Your task to perform on an android device: Open calendar and show me the first week of next month Image 0: 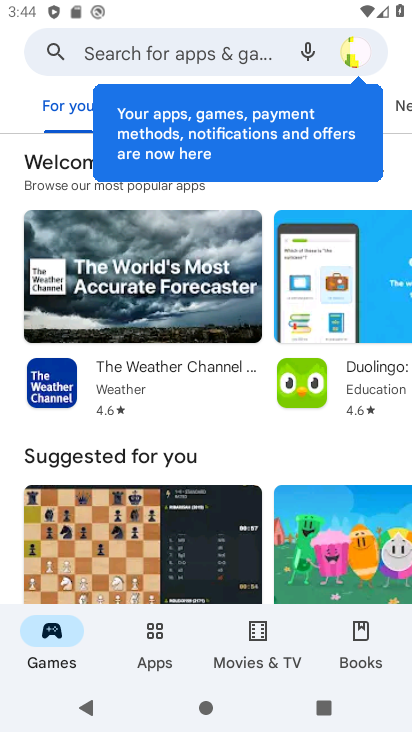
Step 0: press home button
Your task to perform on an android device: Open calendar and show me the first week of next month Image 1: 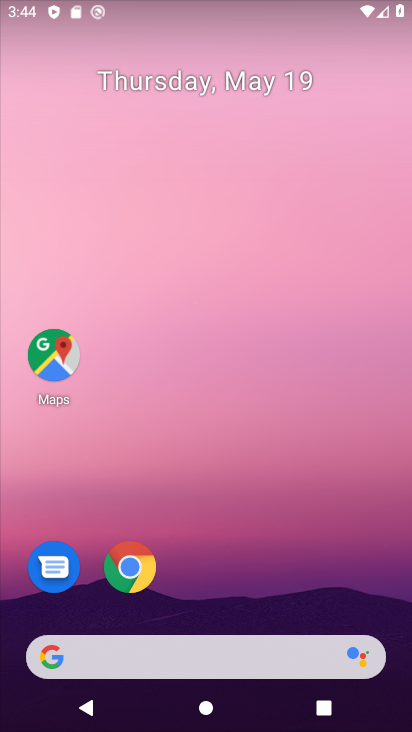
Step 1: drag from (171, 596) to (226, 1)
Your task to perform on an android device: Open calendar and show me the first week of next month Image 2: 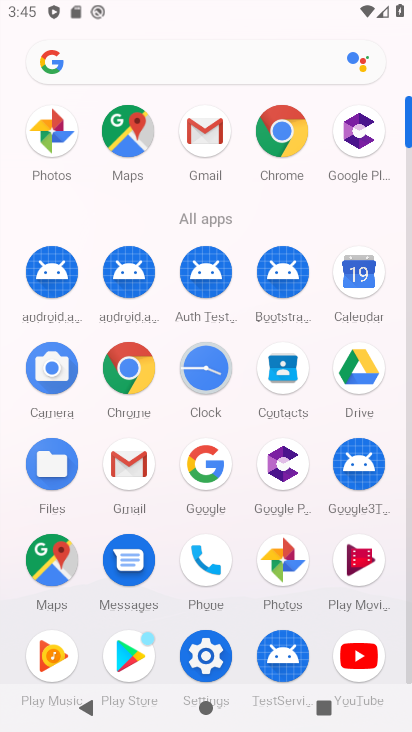
Step 2: click (343, 309)
Your task to perform on an android device: Open calendar and show me the first week of next month Image 3: 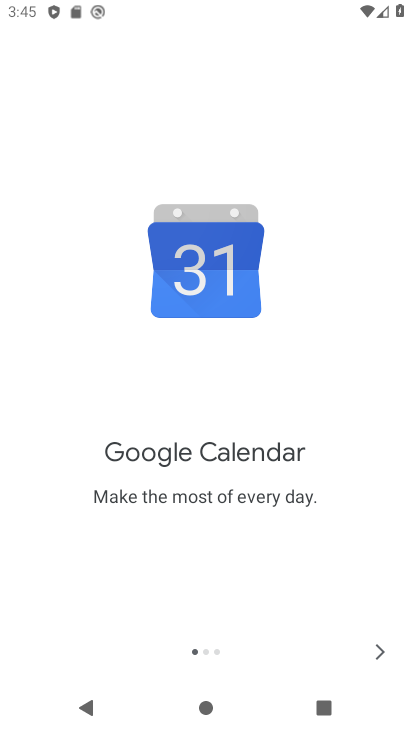
Step 3: click (369, 647)
Your task to perform on an android device: Open calendar and show me the first week of next month Image 4: 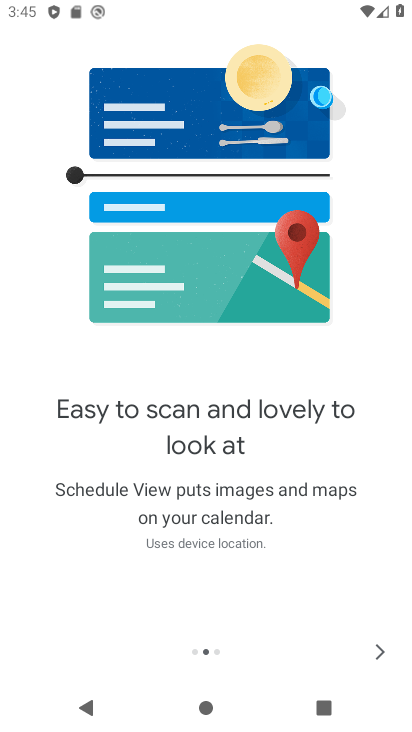
Step 4: click (369, 647)
Your task to perform on an android device: Open calendar and show me the first week of next month Image 5: 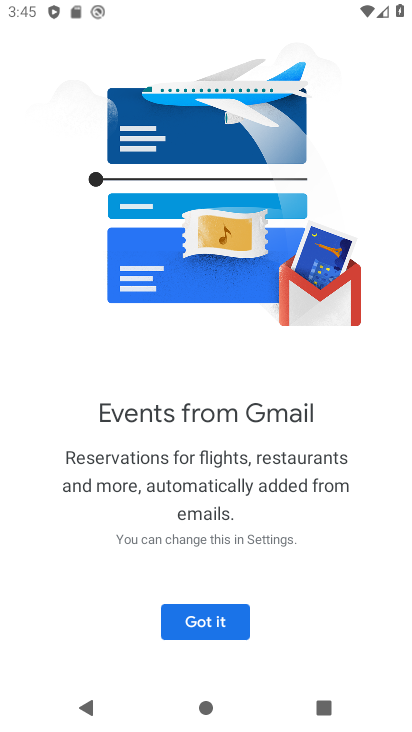
Step 5: click (205, 624)
Your task to perform on an android device: Open calendar and show me the first week of next month Image 6: 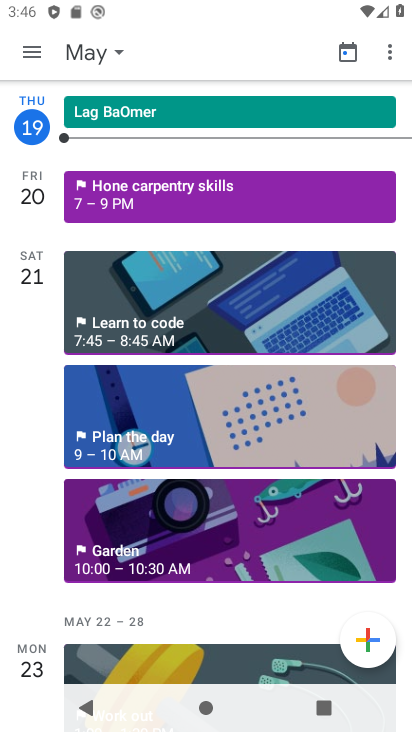
Step 6: click (29, 54)
Your task to perform on an android device: Open calendar and show me the first week of next month Image 7: 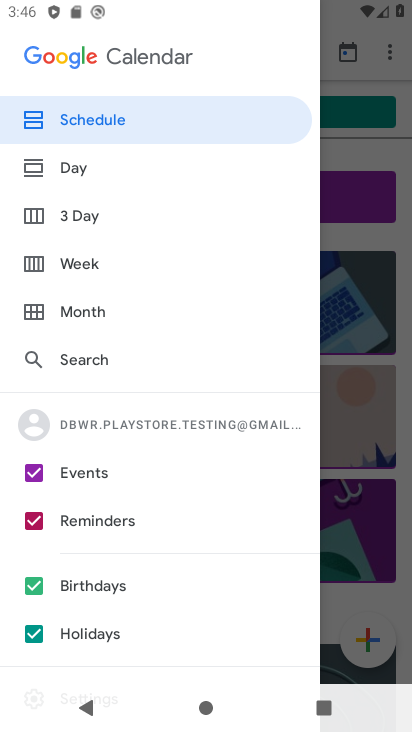
Step 7: click (54, 268)
Your task to perform on an android device: Open calendar and show me the first week of next month Image 8: 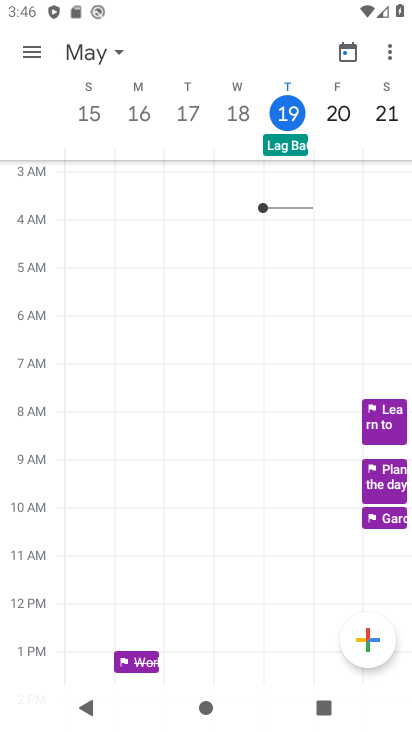
Step 8: click (88, 59)
Your task to perform on an android device: Open calendar and show me the first week of next month Image 9: 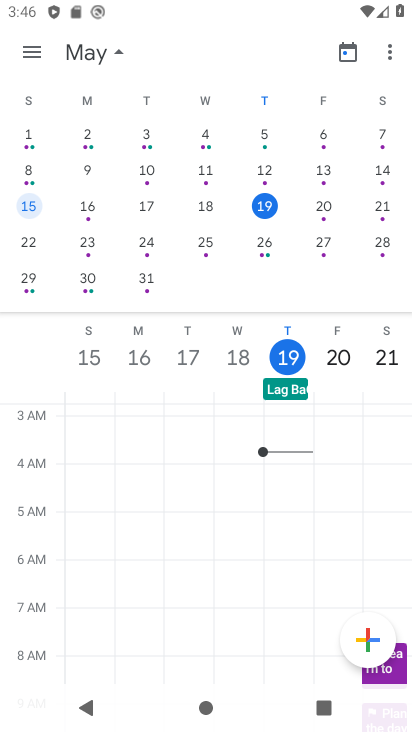
Step 9: drag from (314, 209) to (9, 207)
Your task to perform on an android device: Open calendar and show me the first week of next month Image 10: 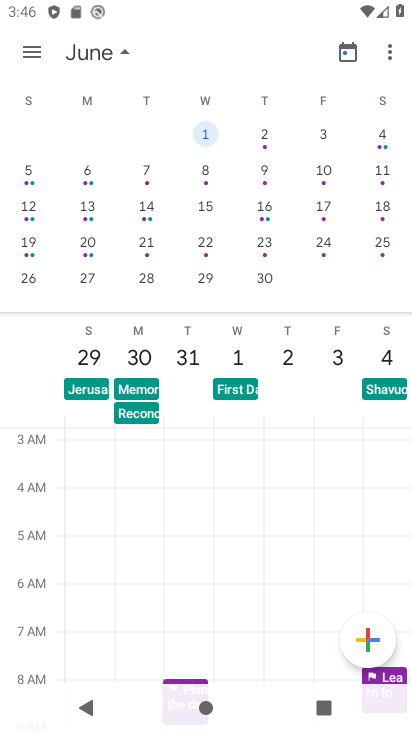
Step 10: click (26, 182)
Your task to perform on an android device: Open calendar and show me the first week of next month Image 11: 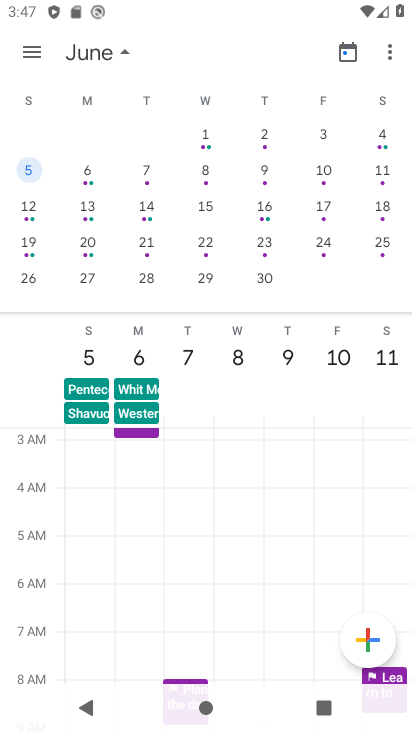
Step 11: task complete